Your task to perform on an android device: Open calendar and show me the third week of next month Image 0: 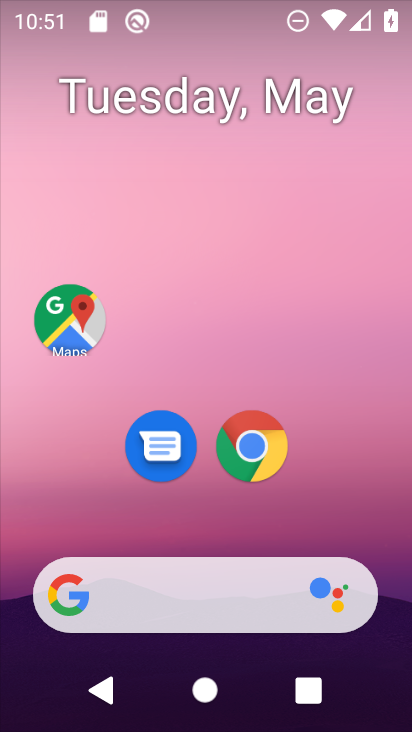
Step 0: drag from (210, 486) to (334, 30)
Your task to perform on an android device: Open calendar and show me the third week of next month Image 1: 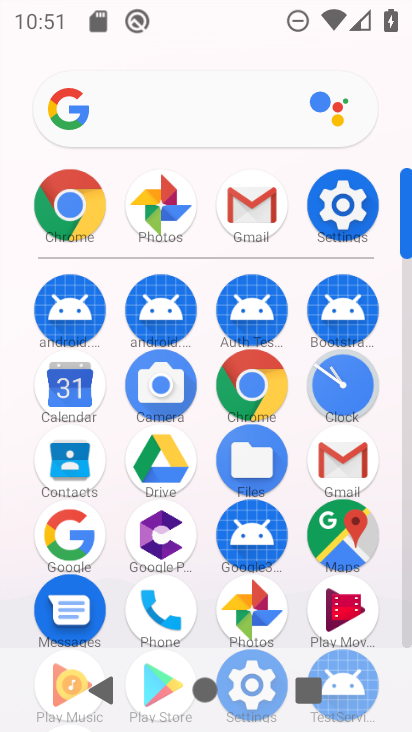
Step 1: click (74, 400)
Your task to perform on an android device: Open calendar and show me the third week of next month Image 2: 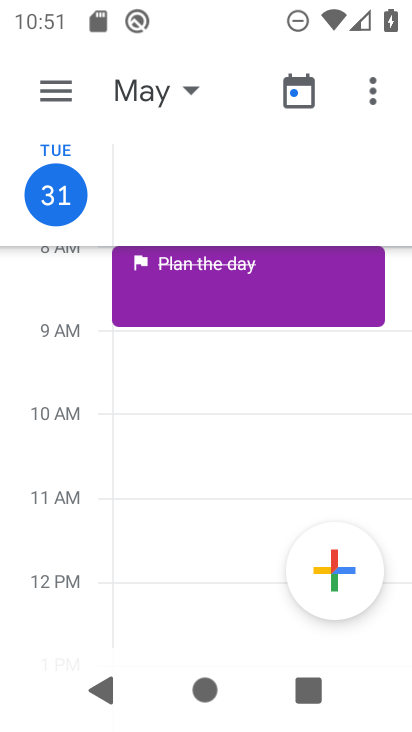
Step 2: click (58, 86)
Your task to perform on an android device: Open calendar and show me the third week of next month Image 3: 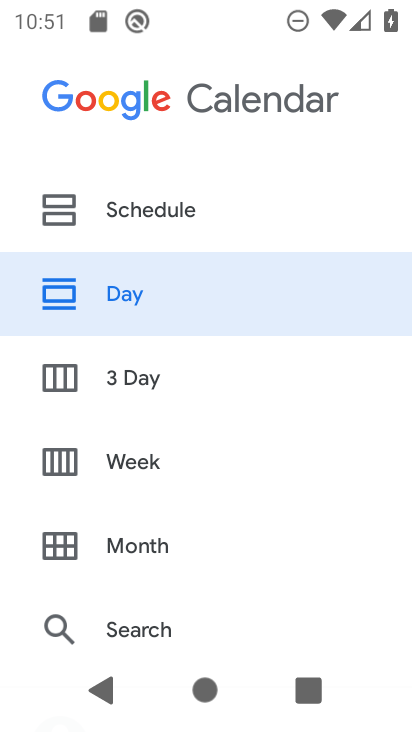
Step 3: click (147, 454)
Your task to perform on an android device: Open calendar and show me the third week of next month Image 4: 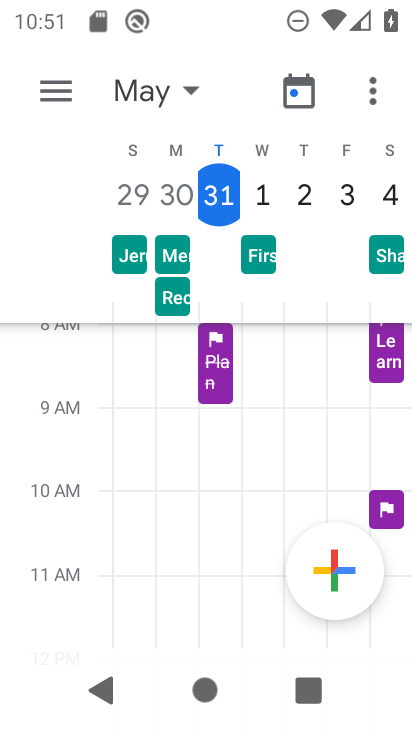
Step 4: task complete